Your task to perform on an android device: turn off translation in the chrome app Image 0: 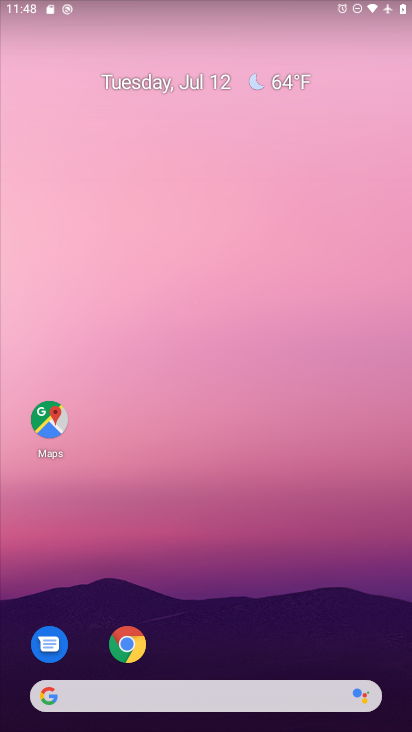
Step 0: click (147, 641)
Your task to perform on an android device: turn off translation in the chrome app Image 1: 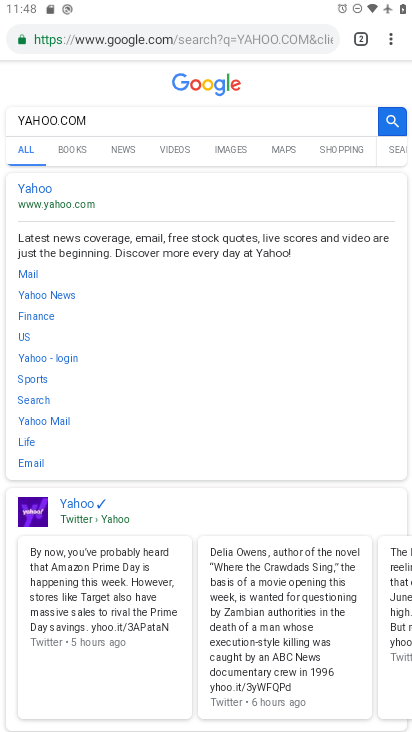
Step 1: click (398, 42)
Your task to perform on an android device: turn off translation in the chrome app Image 2: 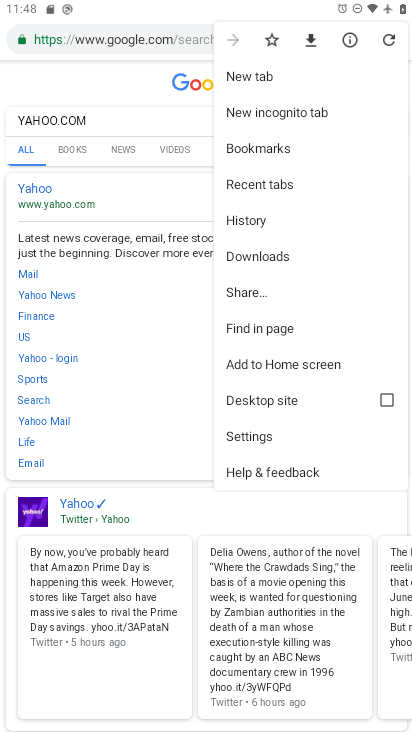
Step 2: click (254, 438)
Your task to perform on an android device: turn off translation in the chrome app Image 3: 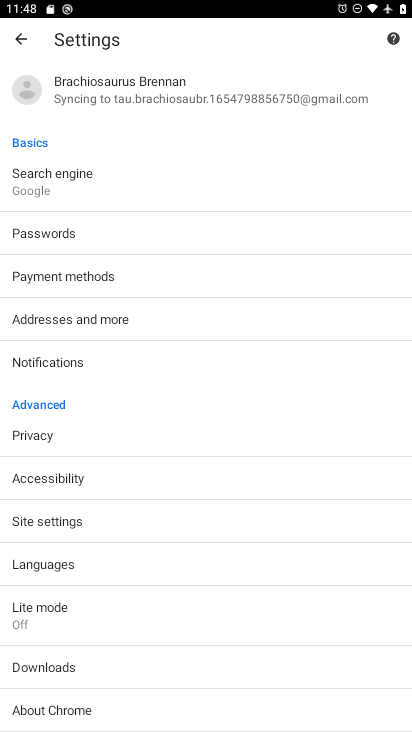
Step 3: drag from (133, 628) to (166, 270)
Your task to perform on an android device: turn off translation in the chrome app Image 4: 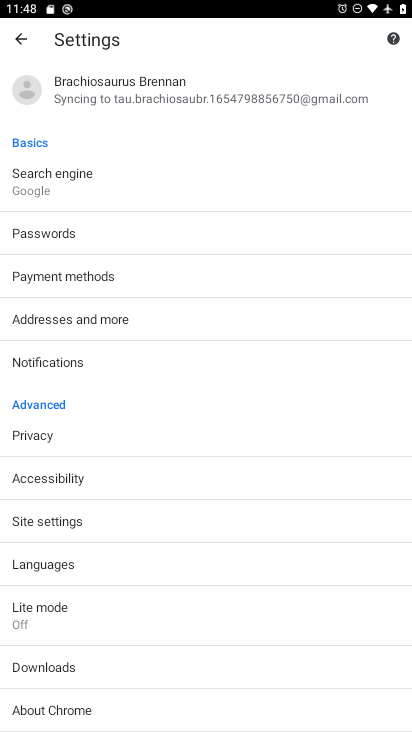
Step 4: drag from (154, 562) to (159, 377)
Your task to perform on an android device: turn off translation in the chrome app Image 5: 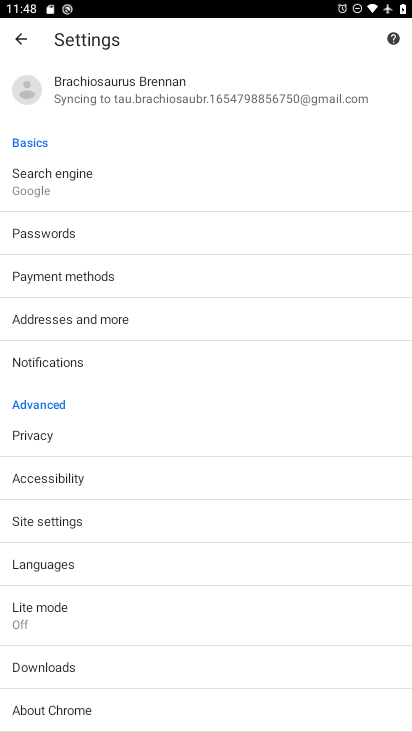
Step 5: click (113, 560)
Your task to perform on an android device: turn off translation in the chrome app Image 6: 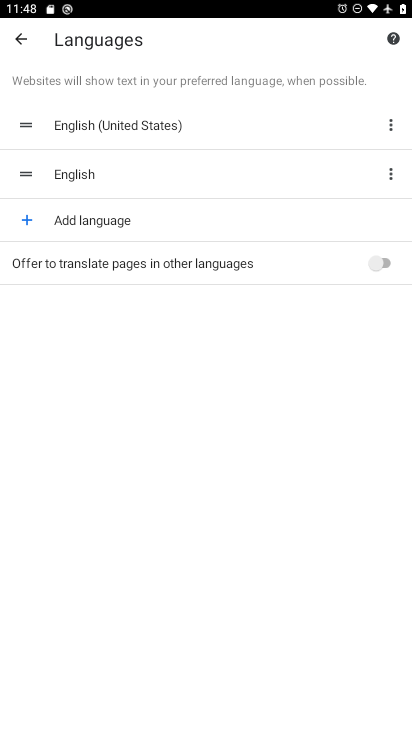
Step 6: click (381, 285)
Your task to perform on an android device: turn off translation in the chrome app Image 7: 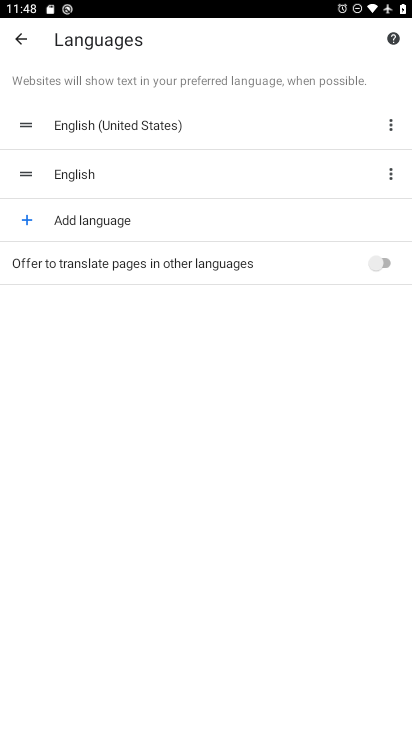
Step 7: click (381, 285)
Your task to perform on an android device: turn off translation in the chrome app Image 8: 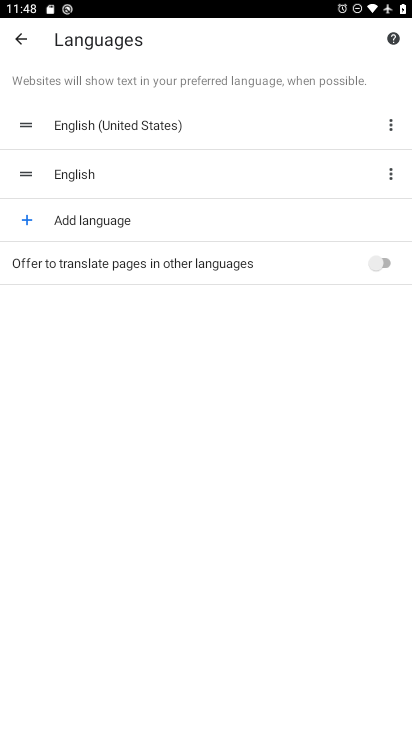
Step 8: click (381, 276)
Your task to perform on an android device: turn off translation in the chrome app Image 9: 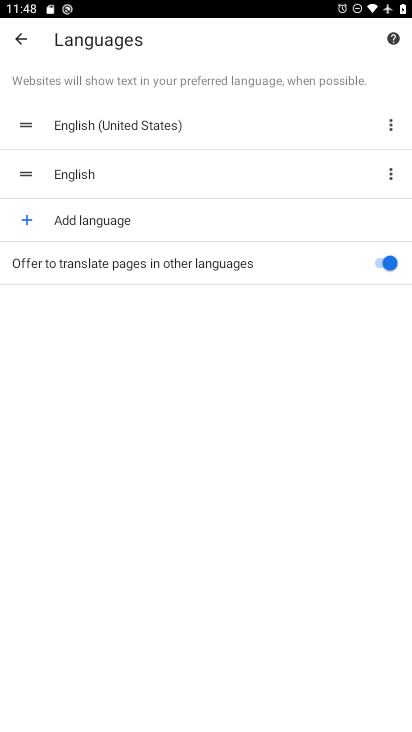
Step 9: task complete